Your task to perform on an android device: check battery use Image 0: 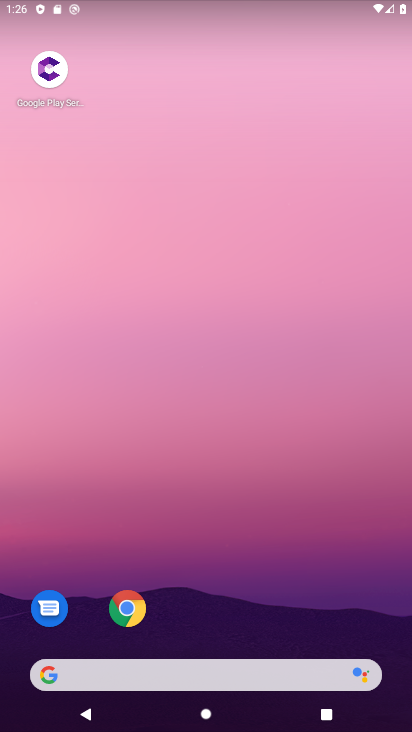
Step 0: drag from (336, 578) to (339, 119)
Your task to perform on an android device: check battery use Image 1: 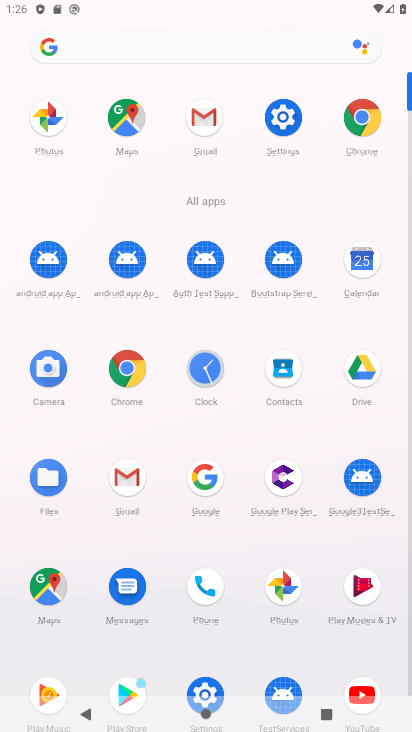
Step 1: click (287, 116)
Your task to perform on an android device: check battery use Image 2: 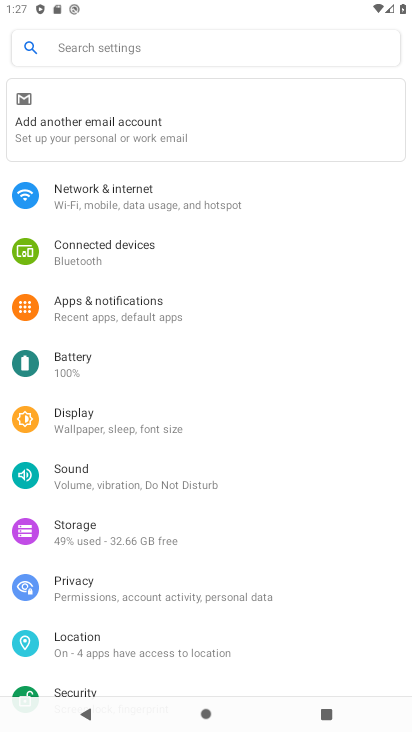
Step 2: drag from (331, 616) to (347, 402)
Your task to perform on an android device: check battery use Image 3: 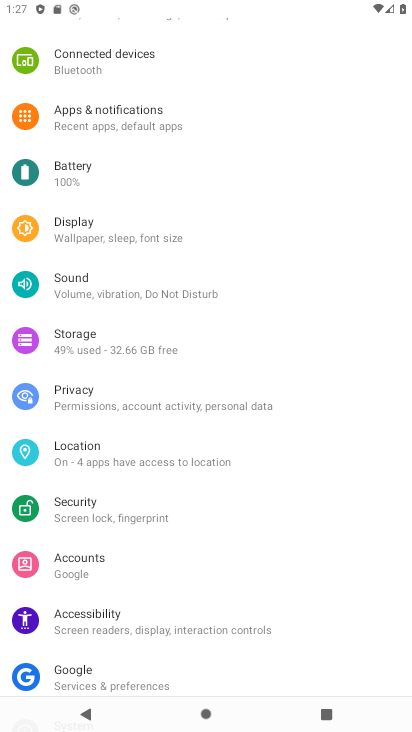
Step 3: drag from (336, 563) to (349, 396)
Your task to perform on an android device: check battery use Image 4: 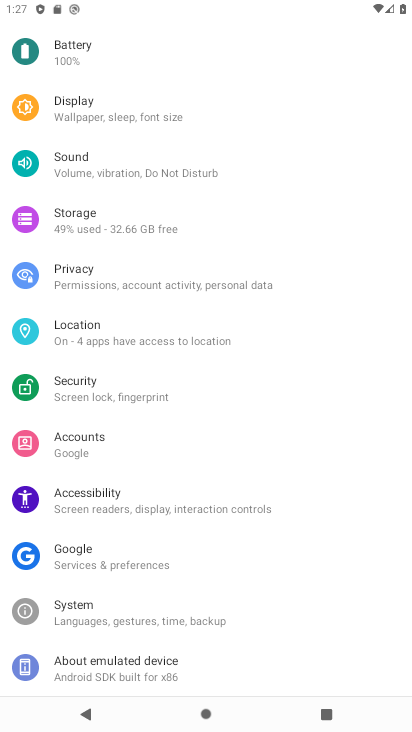
Step 4: drag from (335, 579) to (341, 397)
Your task to perform on an android device: check battery use Image 5: 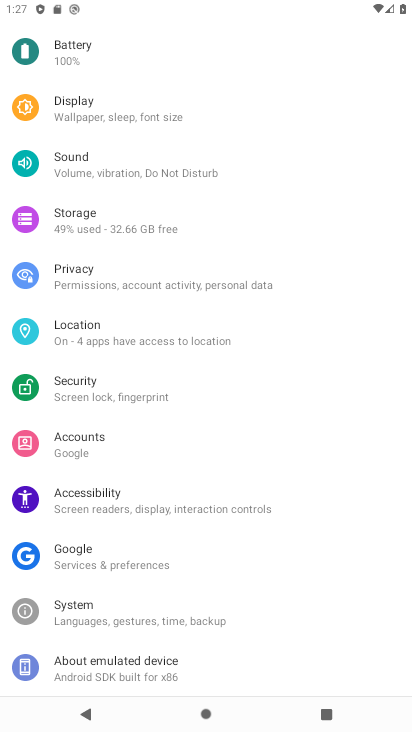
Step 5: drag from (348, 251) to (339, 404)
Your task to perform on an android device: check battery use Image 6: 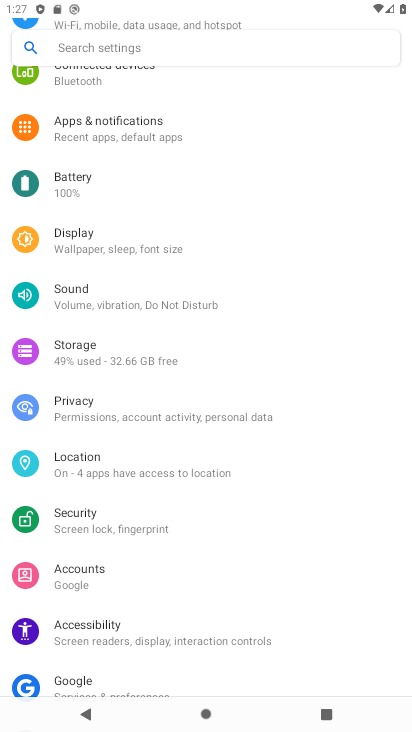
Step 6: drag from (335, 299) to (334, 435)
Your task to perform on an android device: check battery use Image 7: 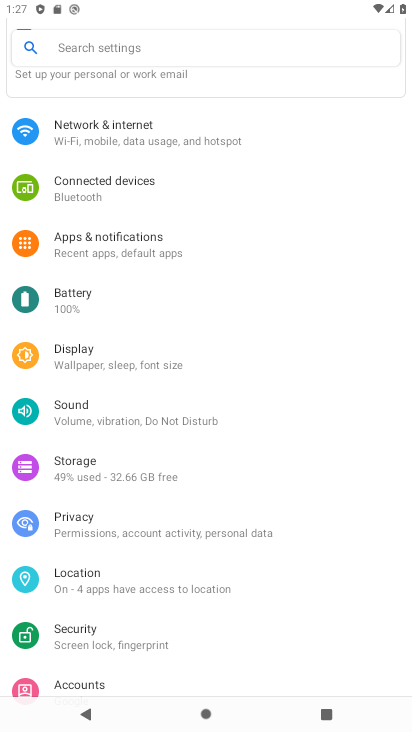
Step 7: drag from (330, 249) to (325, 411)
Your task to perform on an android device: check battery use Image 8: 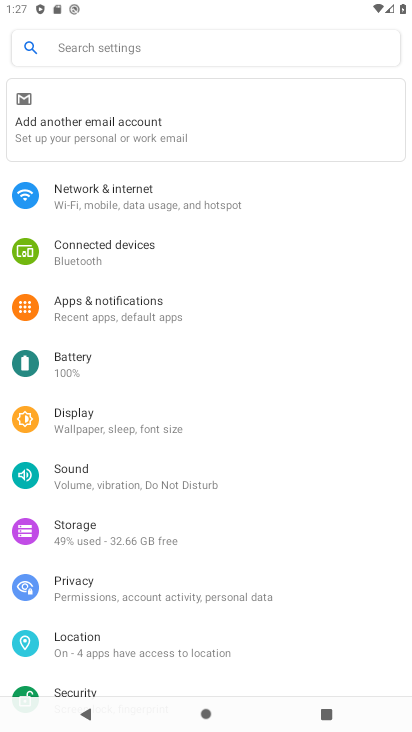
Step 8: click (90, 364)
Your task to perform on an android device: check battery use Image 9: 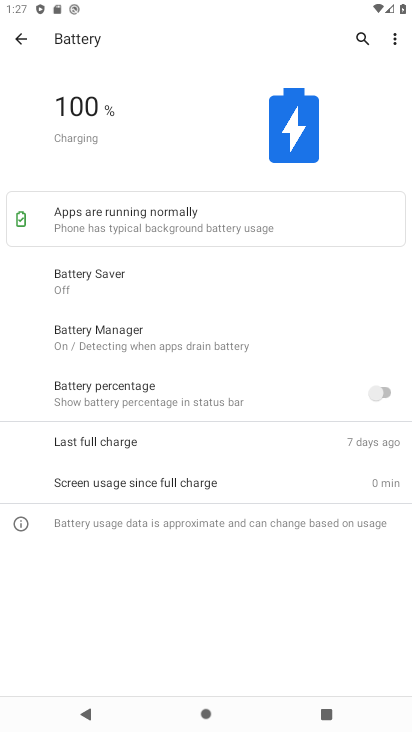
Step 9: click (397, 32)
Your task to perform on an android device: check battery use Image 10: 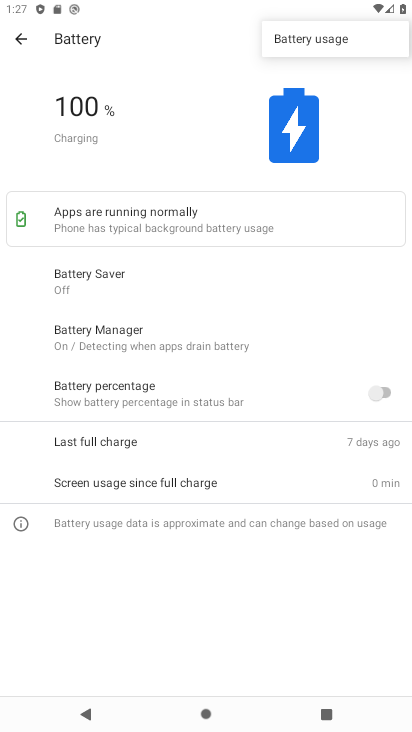
Step 10: click (329, 40)
Your task to perform on an android device: check battery use Image 11: 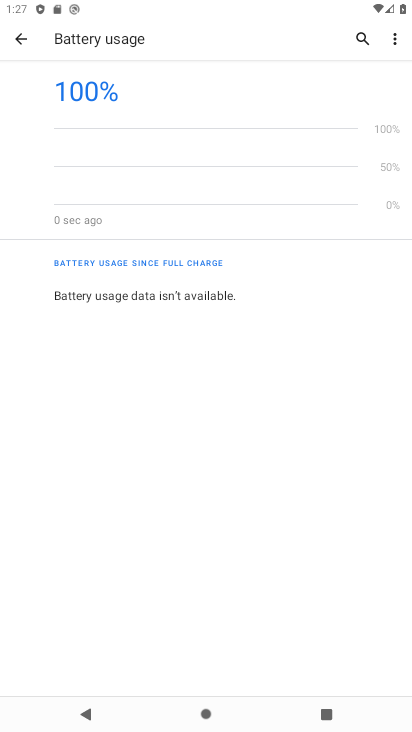
Step 11: task complete